Your task to perform on an android device: Open eBay Image 0: 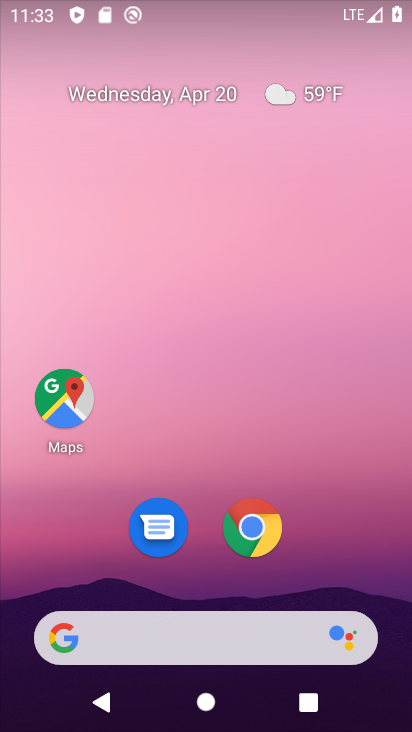
Step 0: drag from (376, 523) to (377, 139)
Your task to perform on an android device: Open eBay Image 1: 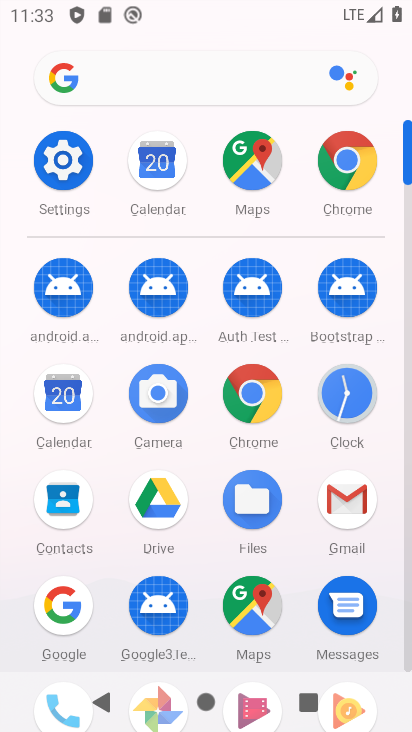
Step 1: click (239, 411)
Your task to perform on an android device: Open eBay Image 2: 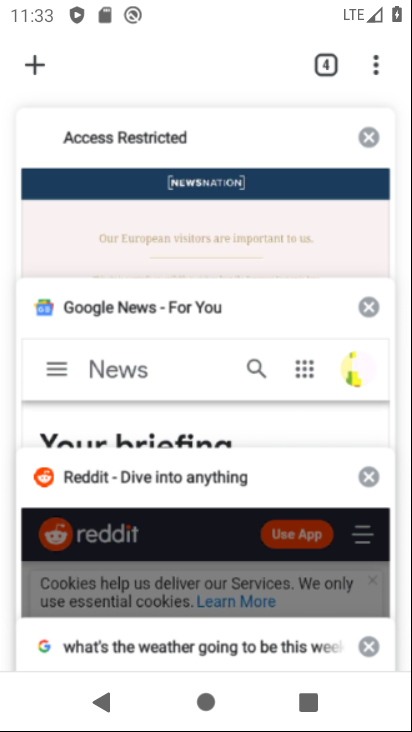
Step 2: click (28, 51)
Your task to perform on an android device: Open eBay Image 3: 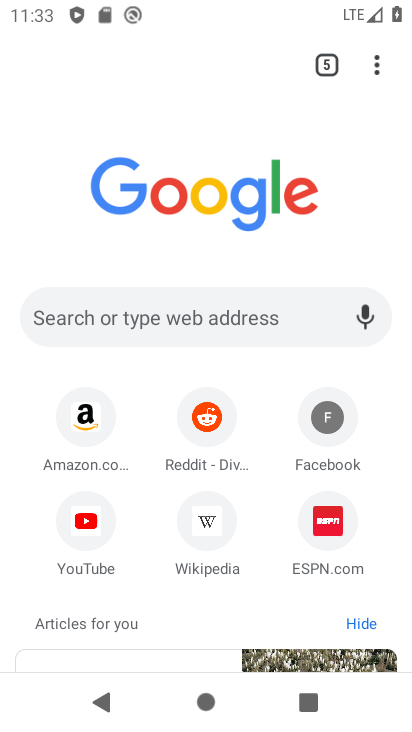
Step 3: click (203, 308)
Your task to perform on an android device: Open eBay Image 4: 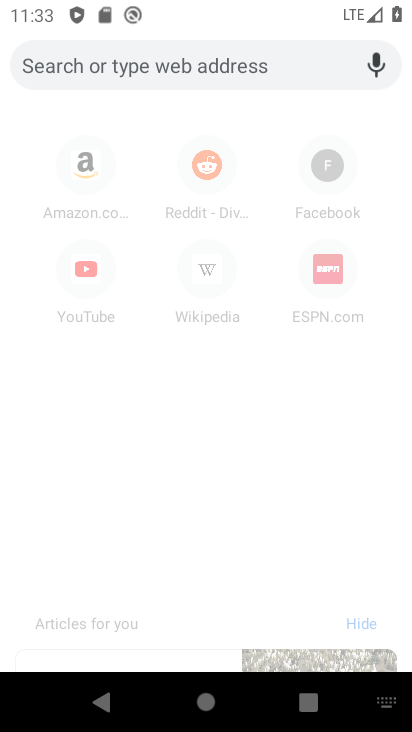
Step 4: type "ebay"
Your task to perform on an android device: Open eBay Image 5: 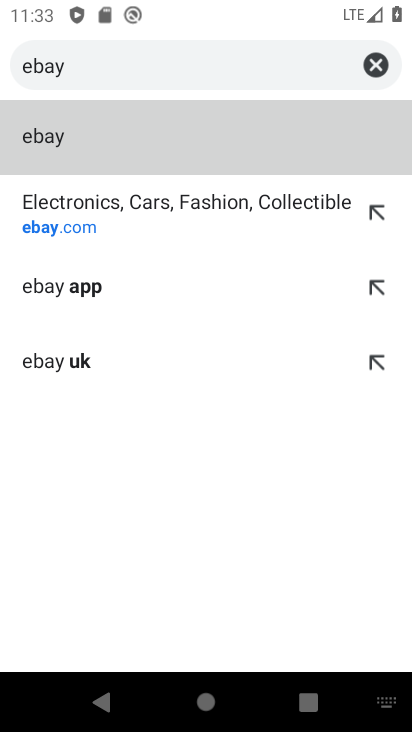
Step 5: click (74, 201)
Your task to perform on an android device: Open eBay Image 6: 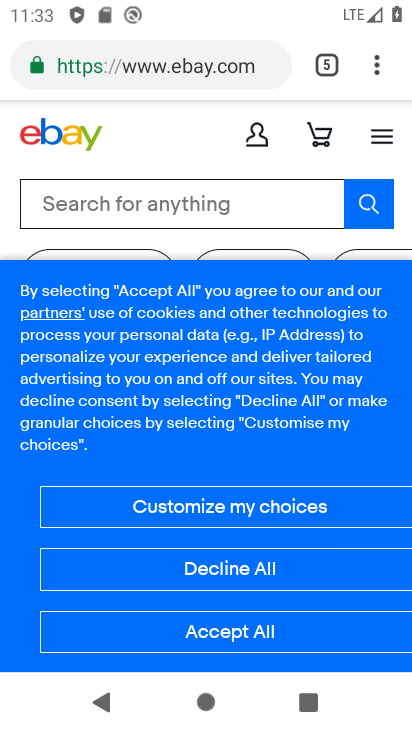
Step 6: task complete